Your task to perform on an android device: Go to Google maps Image 0: 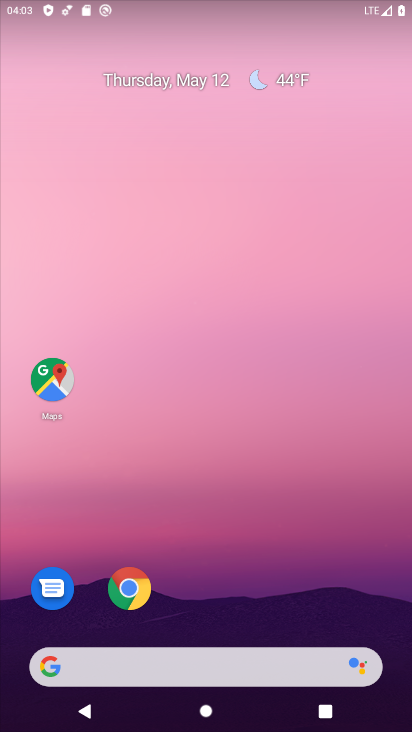
Step 0: drag from (177, 622) to (238, 198)
Your task to perform on an android device: Go to Google maps Image 1: 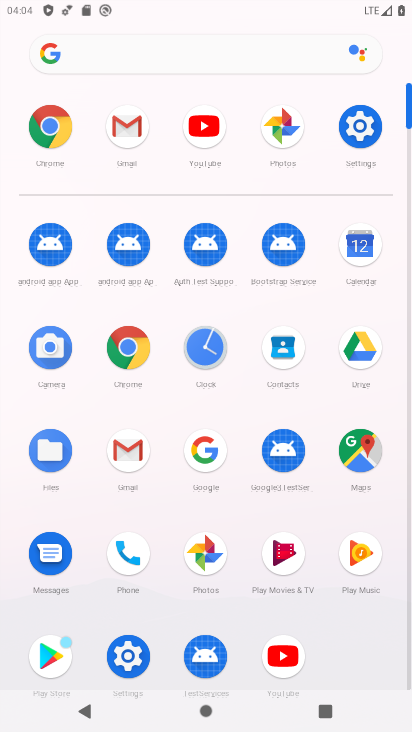
Step 1: click (350, 449)
Your task to perform on an android device: Go to Google maps Image 2: 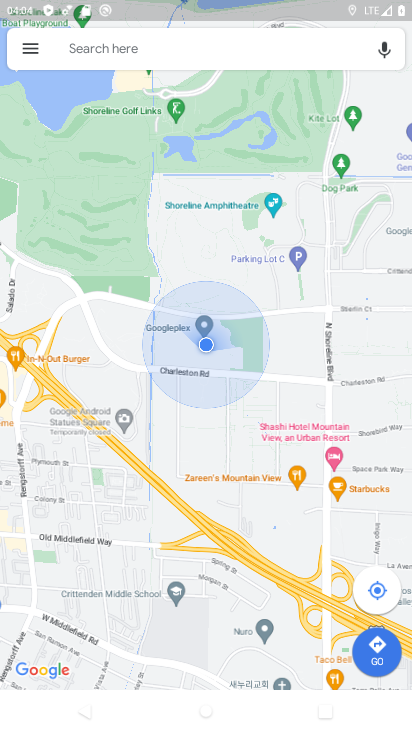
Step 2: task complete